Your task to perform on an android device: check out phone information Image 0: 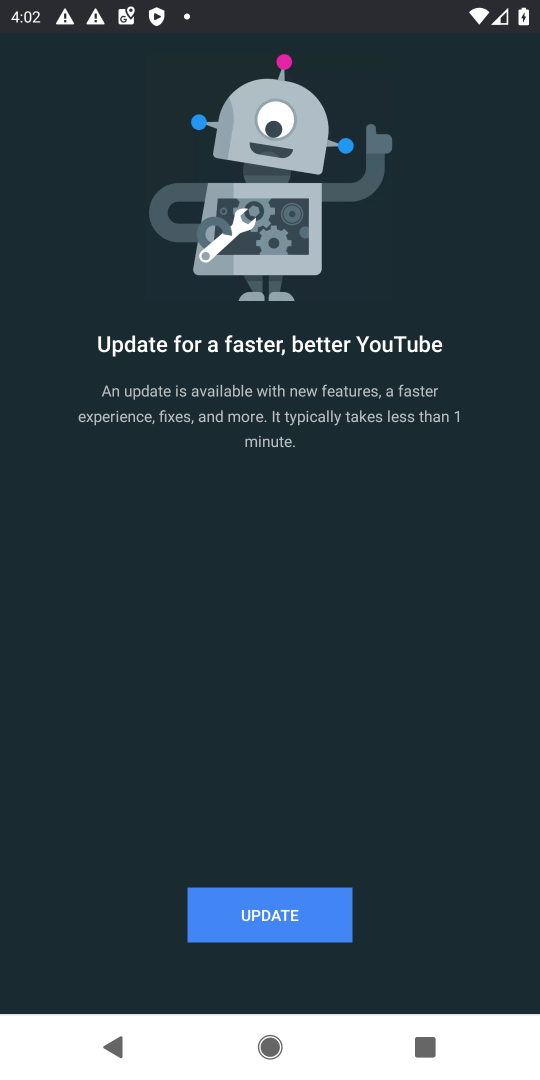
Step 0: press home button
Your task to perform on an android device: check out phone information Image 1: 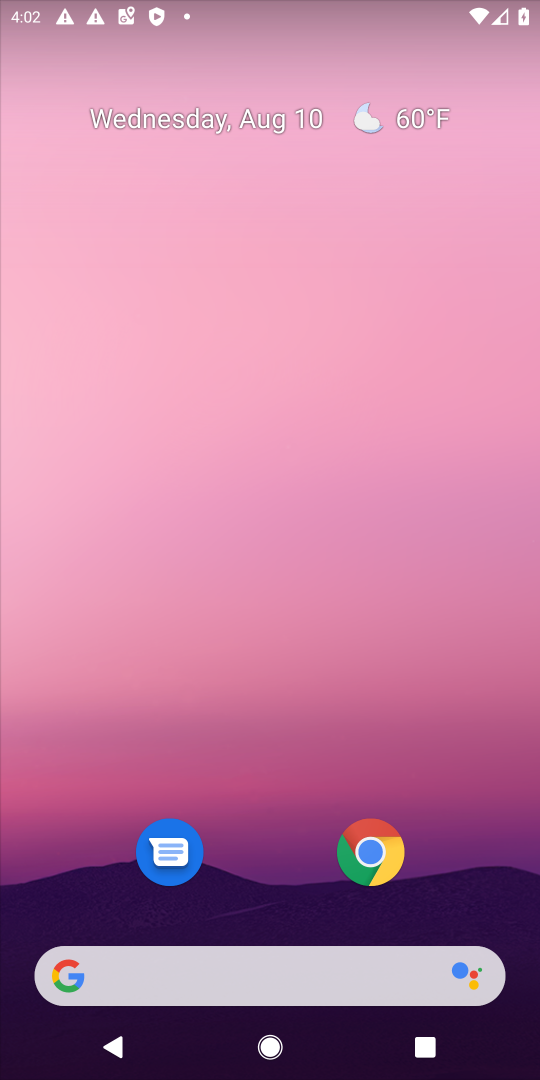
Step 1: drag from (460, 893) to (490, 232)
Your task to perform on an android device: check out phone information Image 2: 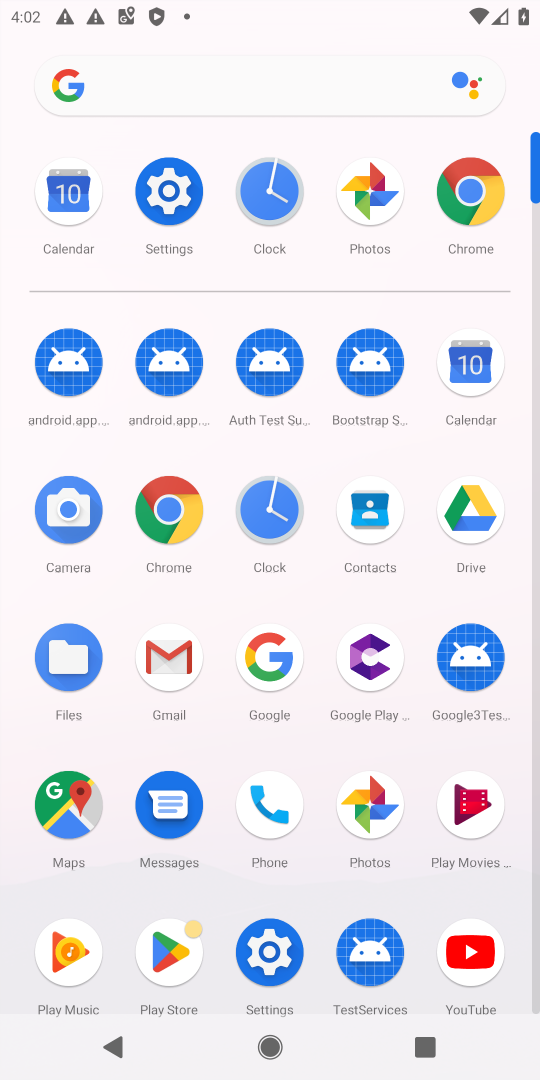
Step 2: click (275, 785)
Your task to perform on an android device: check out phone information Image 3: 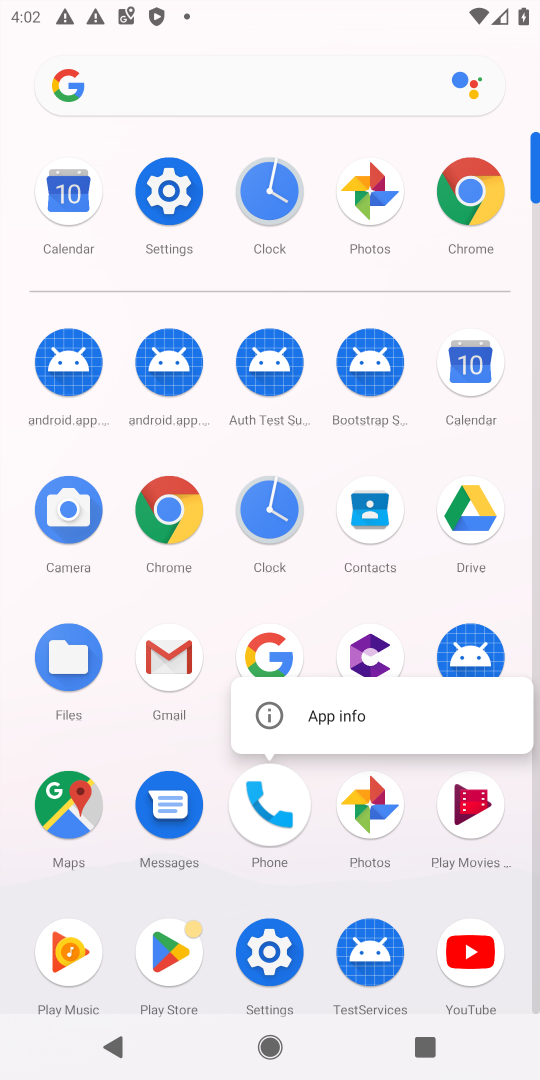
Step 3: click (318, 721)
Your task to perform on an android device: check out phone information Image 4: 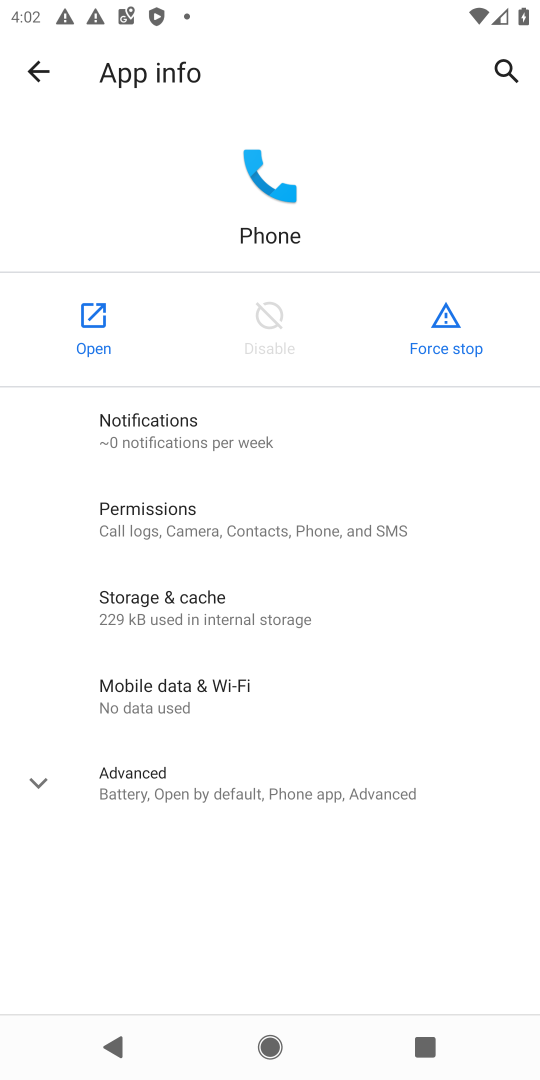
Step 4: task complete